Your task to perform on an android device: Go to display settings Image 0: 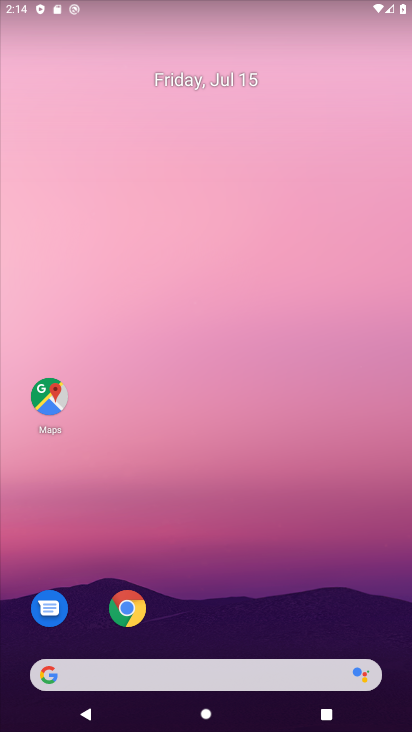
Step 0: drag from (317, 635) to (175, 181)
Your task to perform on an android device: Go to display settings Image 1: 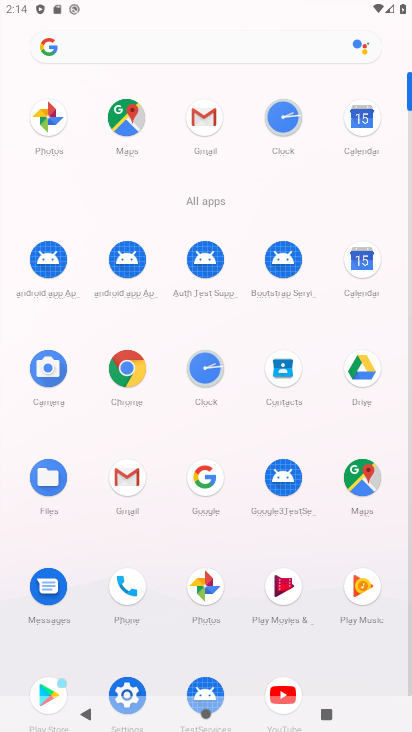
Step 1: click (134, 690)
Your task to perform on an android device: Go to display settings Image 2: 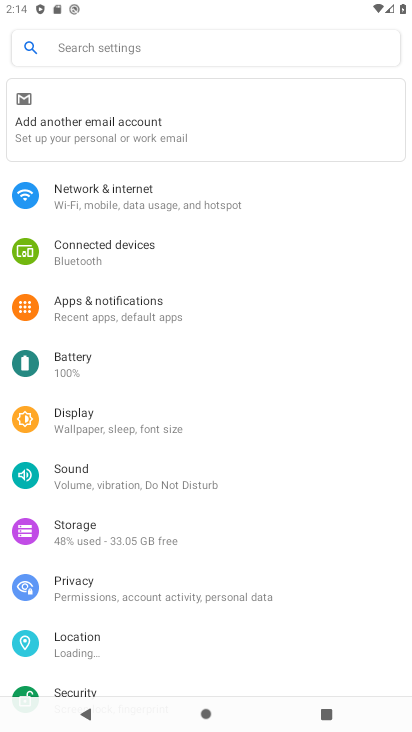
Step 2: click (123, 423)
Your task to perform on an android device: Go to display settings Image 3: 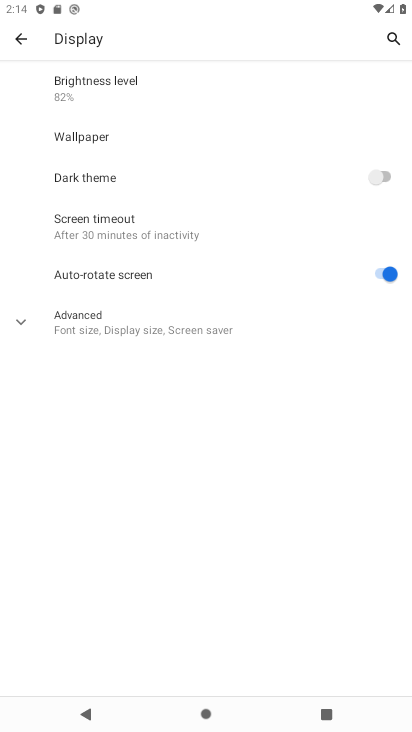
Step 3: task complete